Your task to perform on an android device: Open notification settings Image 0: 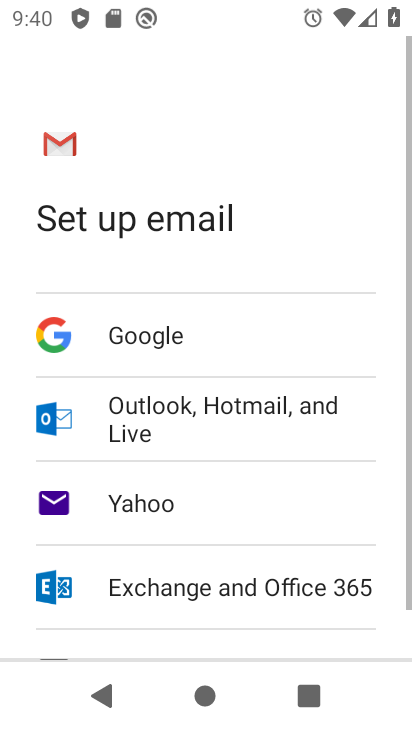
Step 0: press home button
Your task to perform on an android device: Open notification settings Image 1: 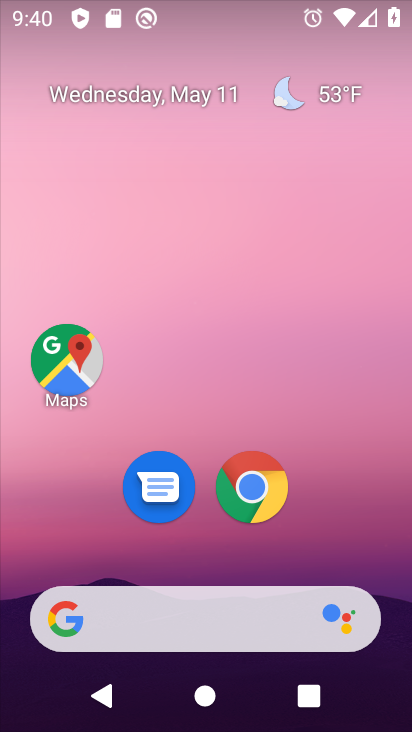
Step 1: drag from (195, 530) to (195, 217)
Your task to perform on an android device: Open notification settings Image 2: 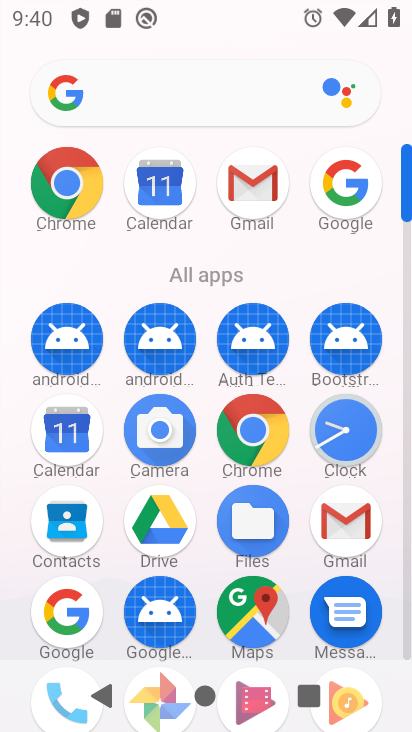
Step 2: drag from (168, 565) to (197, 181)
Your task to perform on an android device: Open notification settings Image 3: 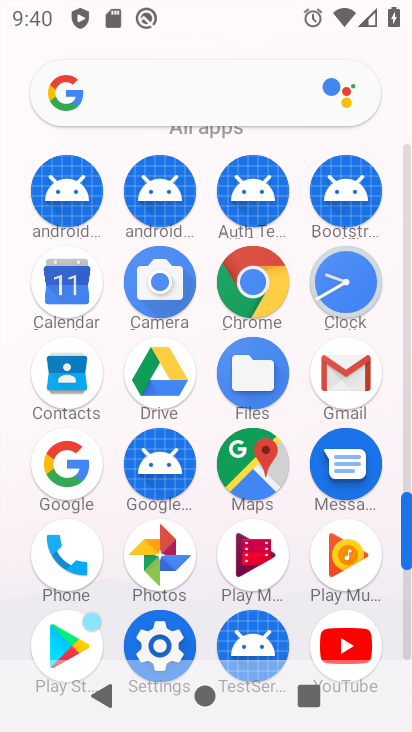
Step 3: click (177, 627)
Your task to perform on an android device: Open notification settings Image 4: 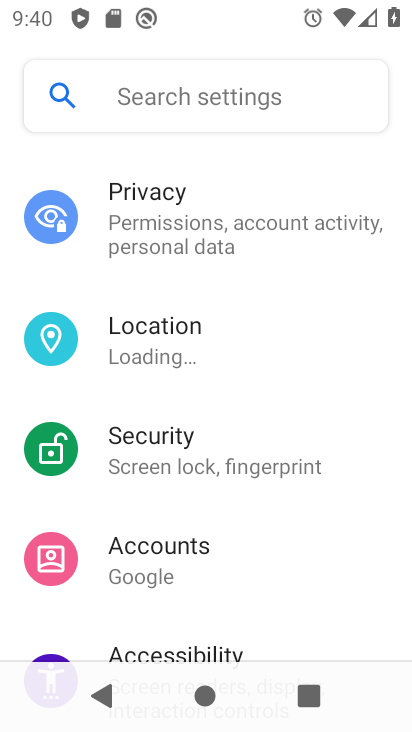
Step 4: drag from (215, 272) to (219, 552)
Your task to perform on an android device: Open notification settings Image 5: 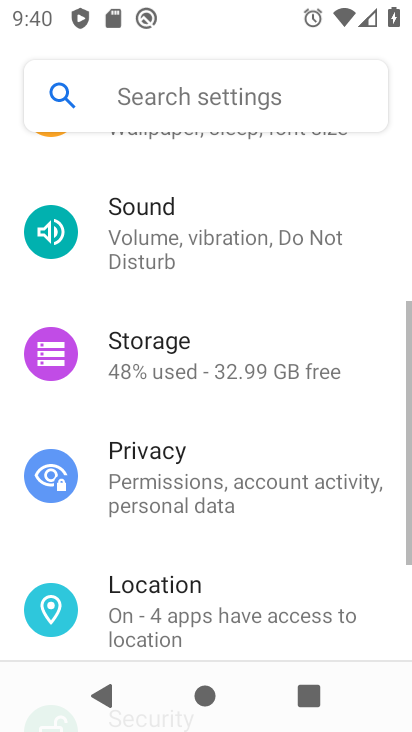
Step 5: drag from (229, 296) to (233, 634)
Your task to perform on an android device: Open notification settings Image 6: 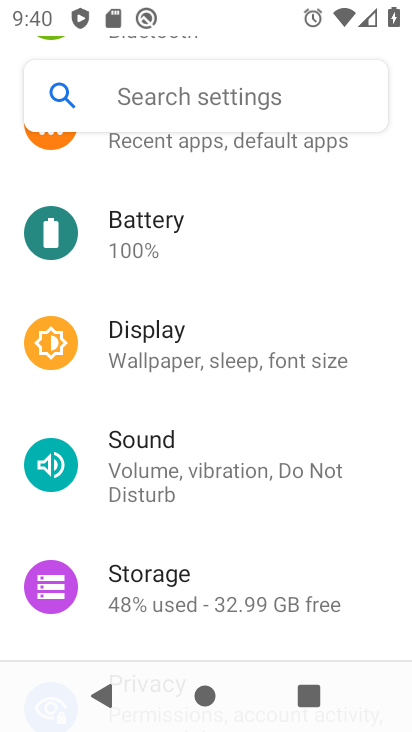
Step 6: drag from (226, 247) to (225, 457)
Your task to perform on an android device: Open notification settings Image 7: 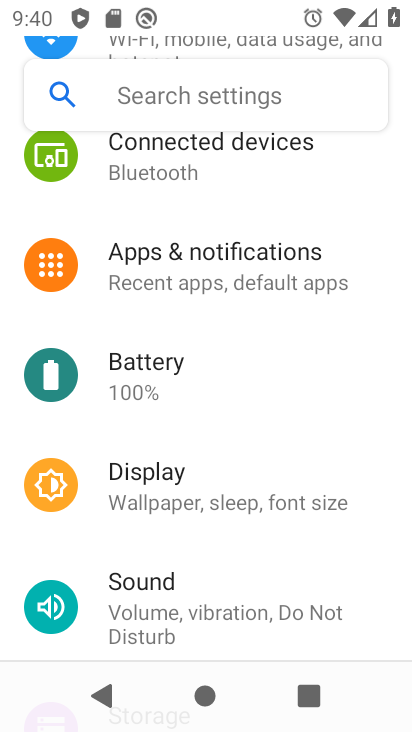
Step 7: click (240, 245)
Your task to perform on an android device: Open notification settings Image 8: 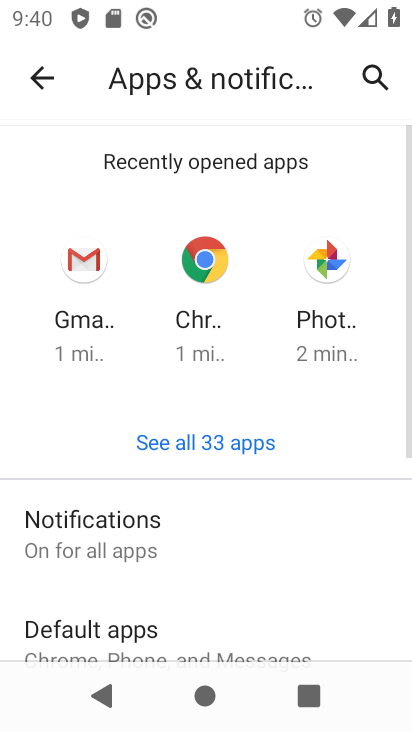
Step 8: click (194, 528)
Your task to perform on an android device: Open notification settings Image 9: 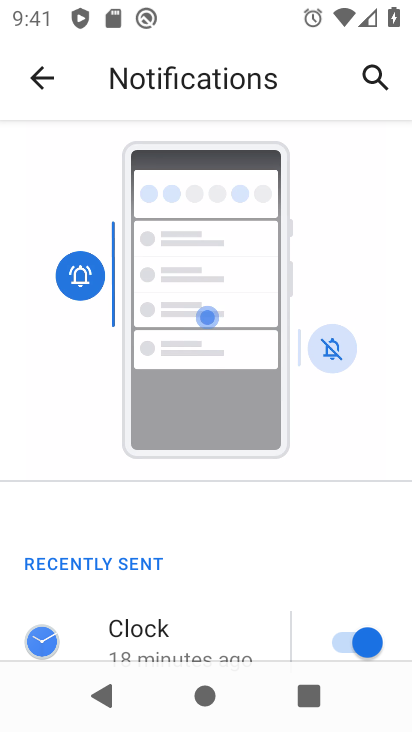
Step 9: task complete